Your task to perform on an android device: change notification settings in the gmail app Image 0: 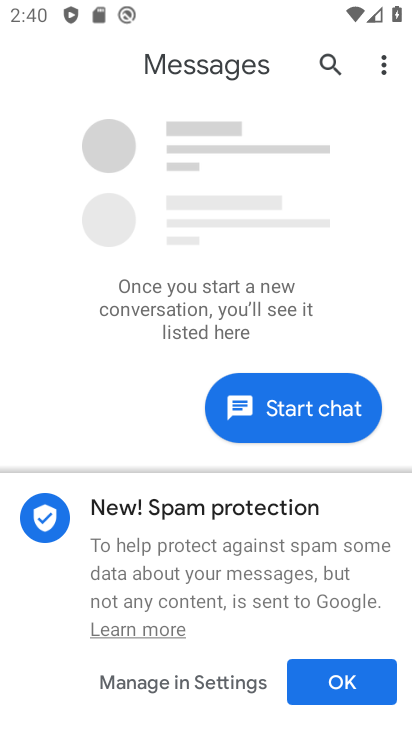
Step 0: press home button
Your task to perform on an android device: change notification settings in the gmail app Image 1: 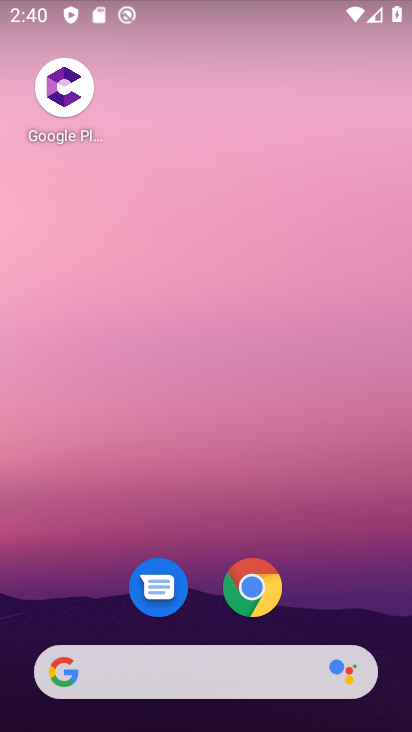
Step 1: drag from (108, 728) to (151, 22)
Your task to perform on an android device: change notification settings in the gmail app Image 2: 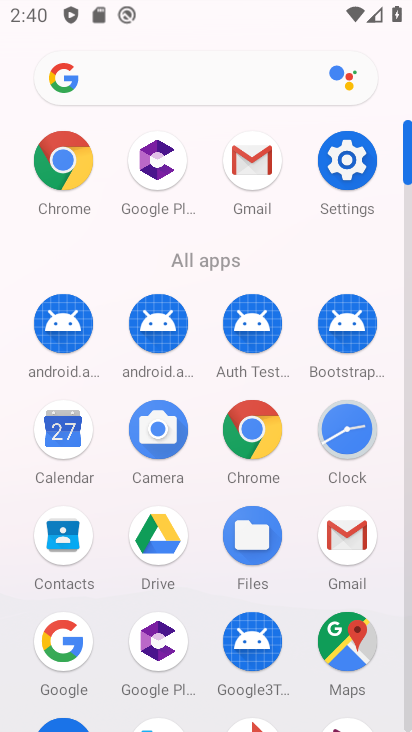
Step 2: click (253, 169)
Your task to perform on an android device: change notification settings in the gmail app Image 3: 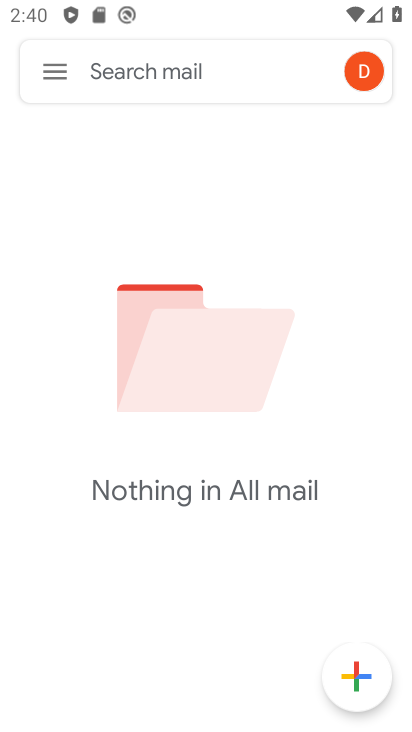
Step 3: click (50, 85)
Your task to perform on an android device: change notification settings in the gmail app Image 4: 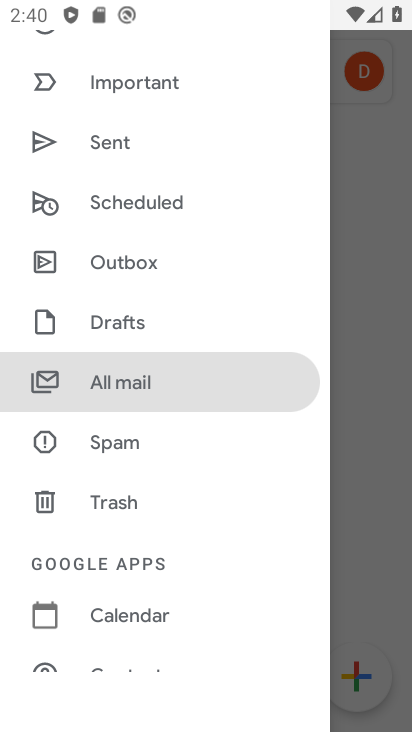
Step 4: drag from (205, 597) to (176, 185)
Your task to perform on an android device: change notification settings in the gmail app Image 5: 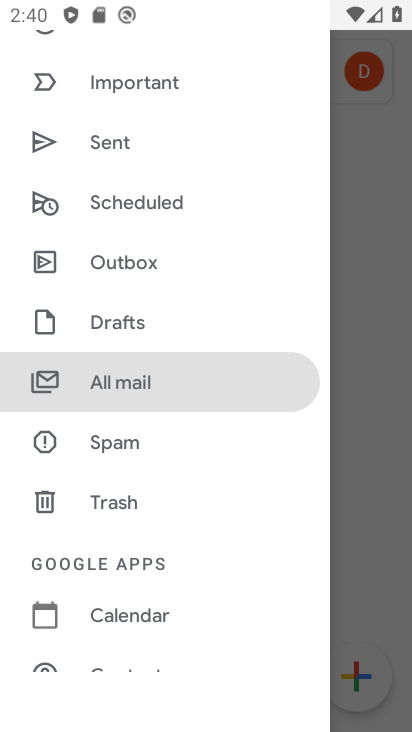
Step 5: drag from (211, 636) to (235, 144)
Your task to perform on an android device: change notification settings in the gmail app Image 6: 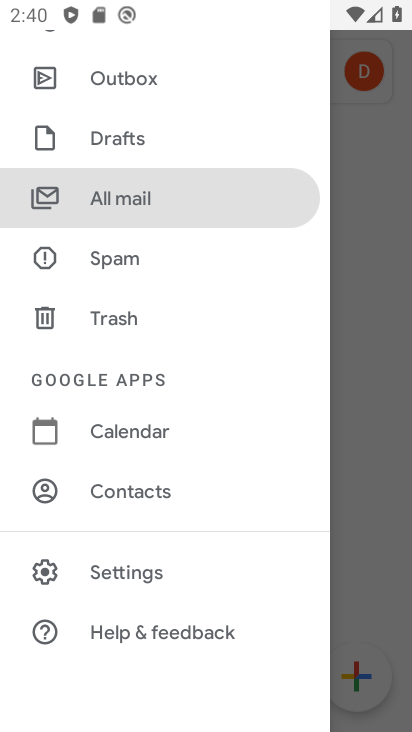
Step 6: click (104, 583)
Your task to perform on an android device: change notification settings in the gmail app Image 7: 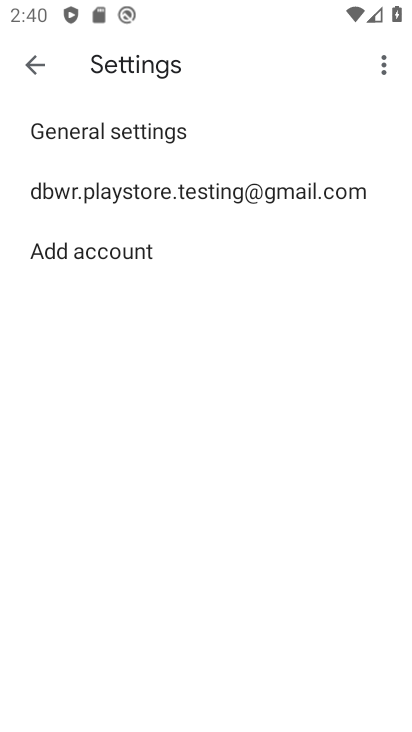
Step 7: click (106, 198)
Your task to perform on an android device: change notification settings in the gmail app Image 8: 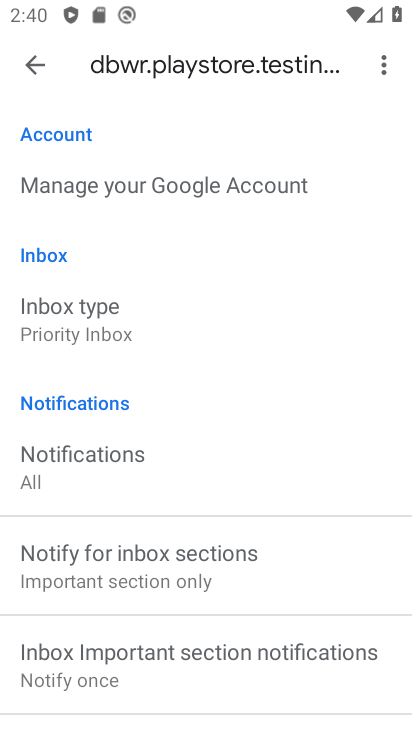
Step 8: click (163, 481)
Your task to perform on an android device: change notification settings in the gmail app Image 9: 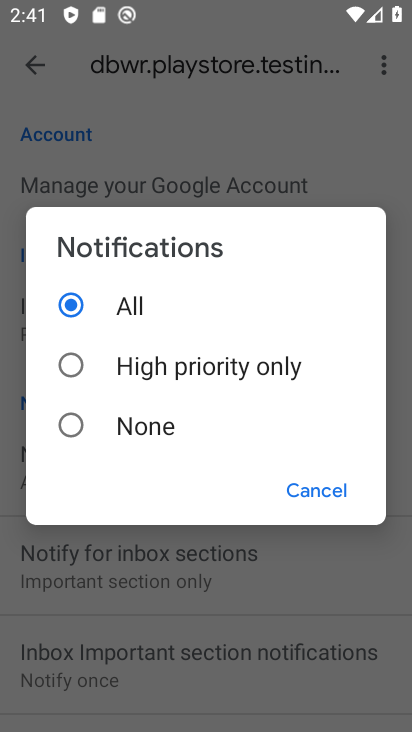
Step 9: click (156, 429)
Your task to perform on an android device: change notification settings in the gmail app Image 10: 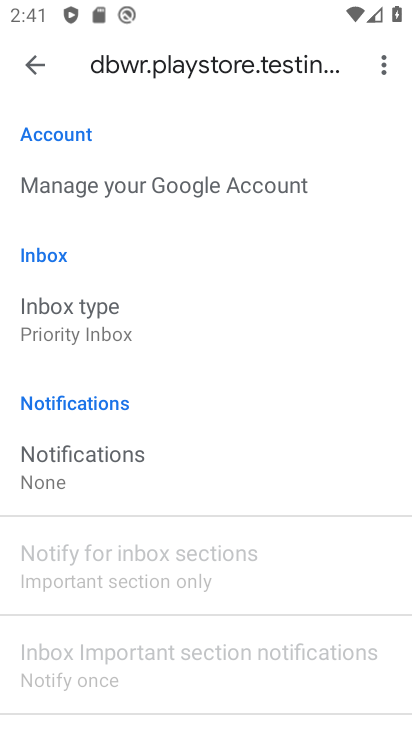
Step 10: task complete